Your task to perform on an android device: change your default location settings in chrome Image 0: 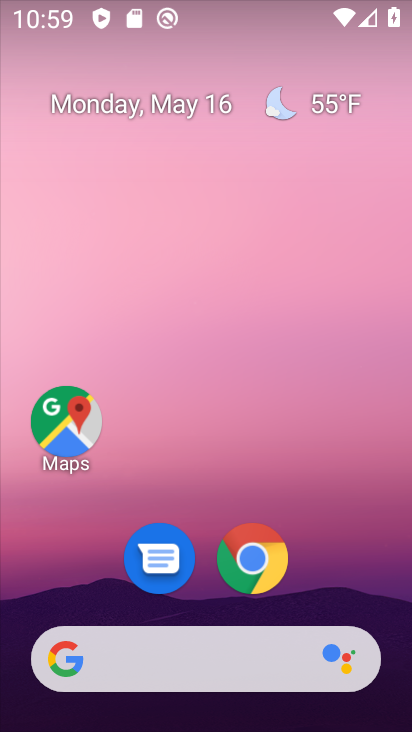
Step 0: click (265, 555)
Your task to perform on an android device: change your default location settings in chrome Image 1: 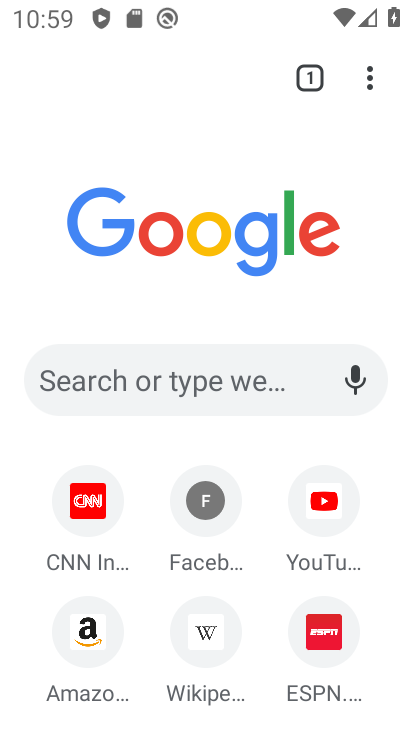
Step 1: click (355, 80)
Your task to perform on an android device: change your default location settings in chrome Image 2: 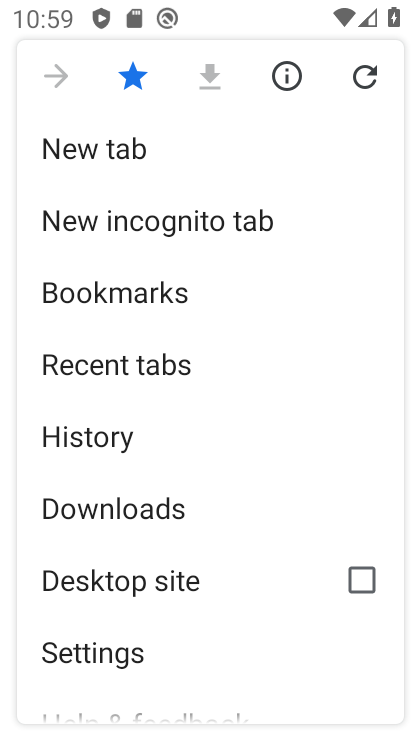
Step 2: click (176, 655)
Your task to perform on an android device: change your default location settings in chrome Image 3: 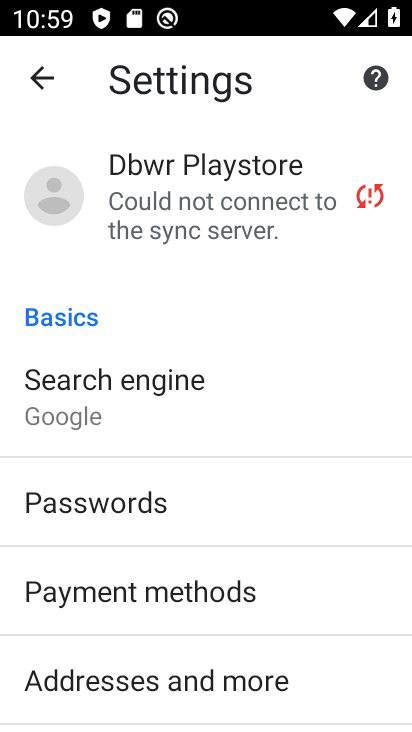
Step 3: click (150, 394)
Your task to perform on an android device: change your default location settings in chrome Image 4: 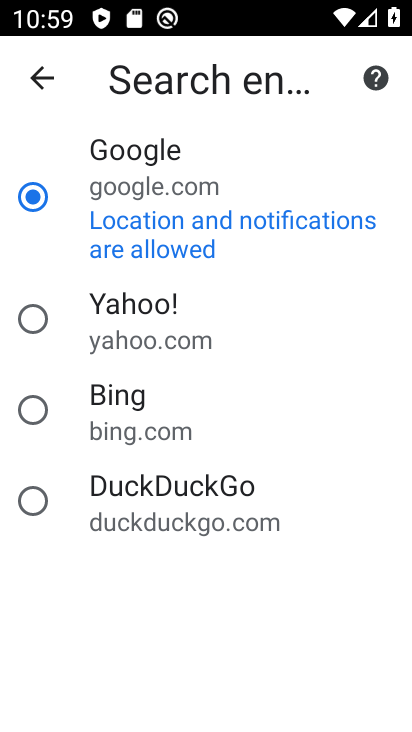
Step 4: click (36, 315)
Your task to perform on an android device: change your default location settings in chrome Image 5: 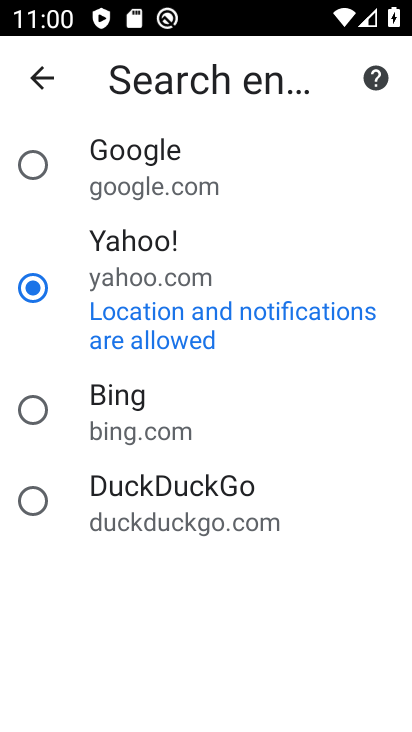
Step 5: task complete